Your task to perform on an android device: turn off airplane mode Image 0: 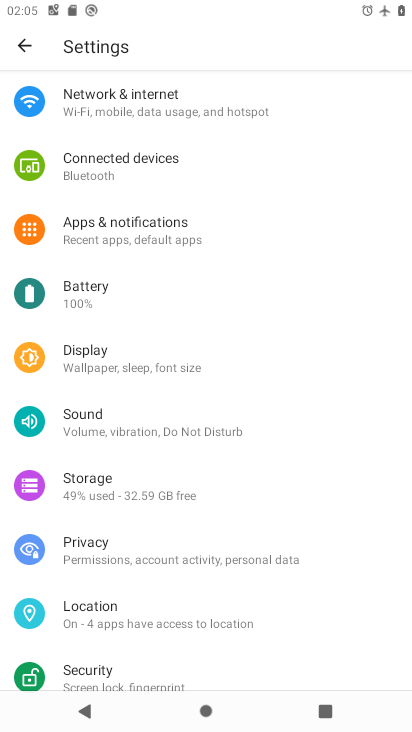
Step 0: click (164, 115)
Your task to perform on an android device: turn off airplane mode Image 1: 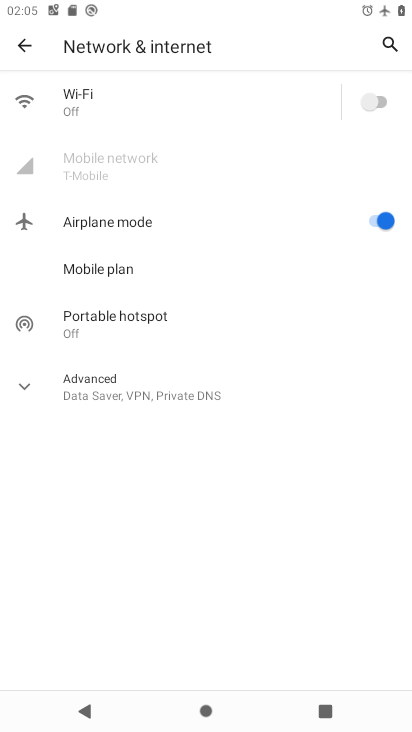
Step 1: click (378, 220)
Your task to perform on an android device: turn off airplane mode Image 2: 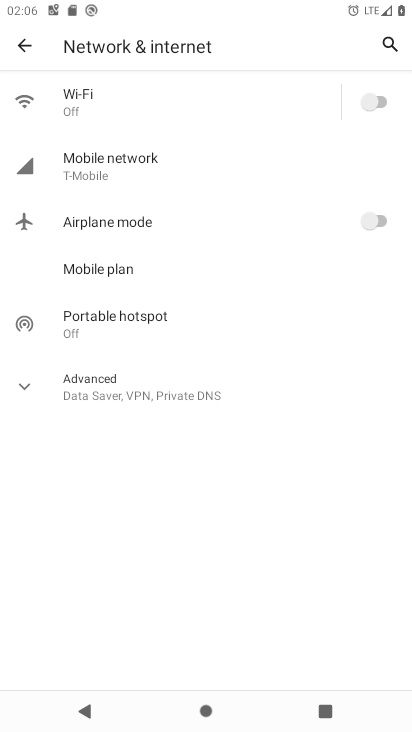
Step 2: task complete